Your task to perform on an android device: check android version Image 0: 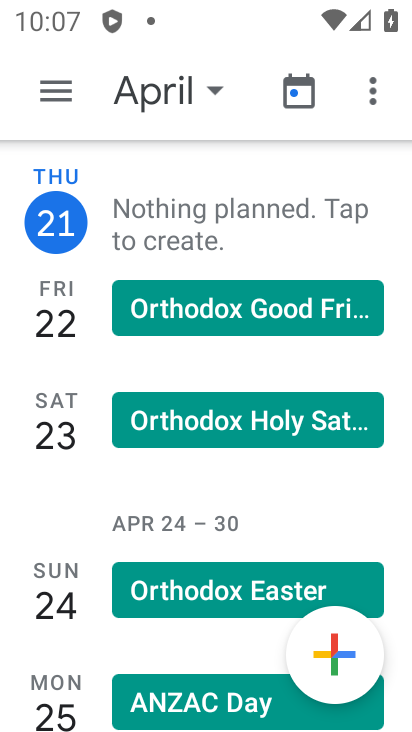
Step 0: press home button
Your task to perform on an android device: check android version Image 1: 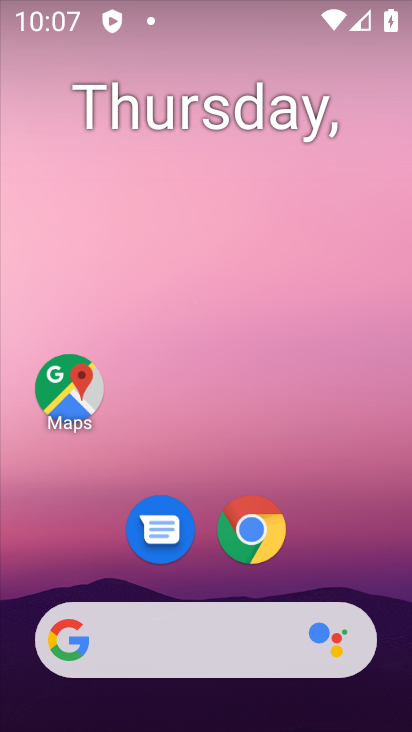
Step 1: drag from (365, 548) to (287, 135)
Your task to perform on an android device: check android version Image 2: 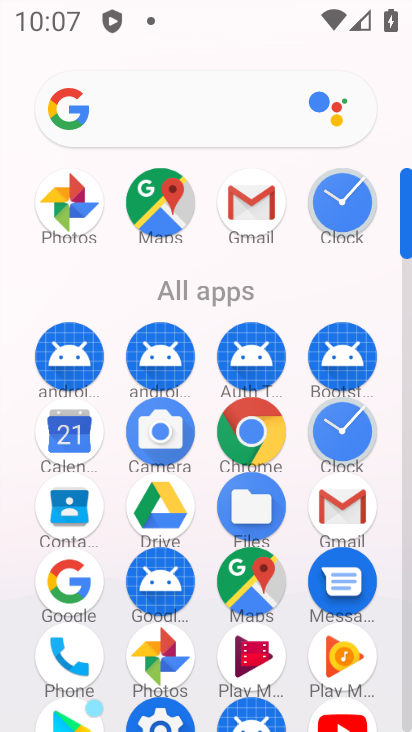
Step 2: click (167, 714)
Your task to perform on an android device: check android version Image 3: 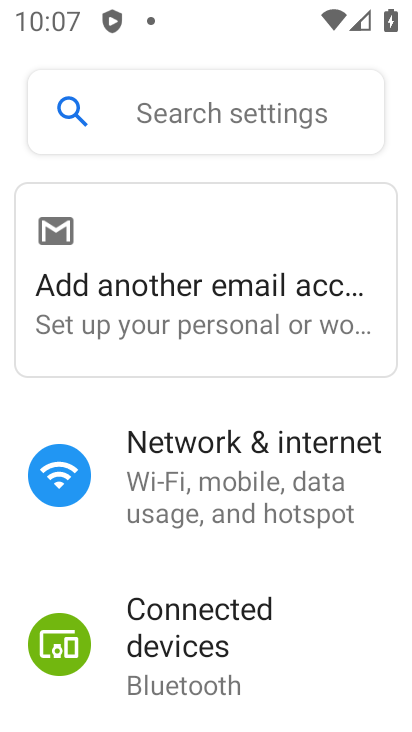
Step 3: task complete